Your task to perform on an android device: delete the emails in spam in the gmail app Image 0: 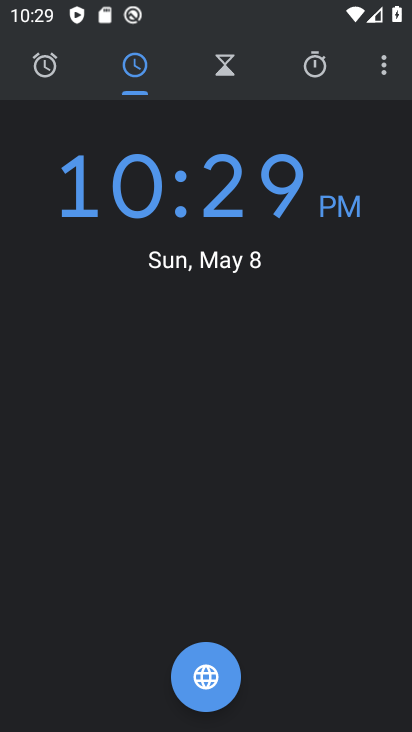
Step 0: press back button
Your task to perform on an android device: delete the emails in spam in the gmail app Image 1: 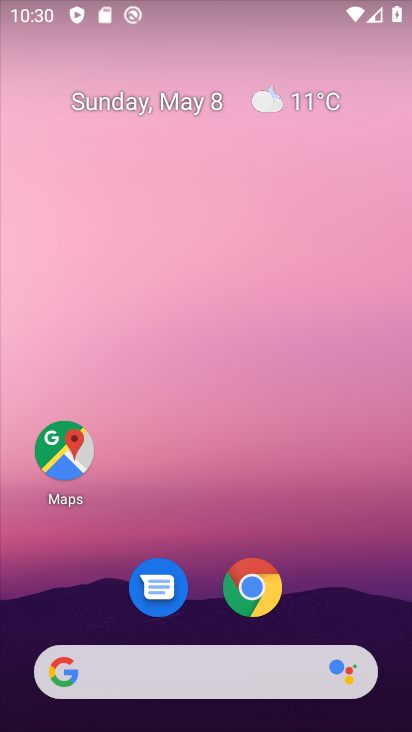
Step 1: drag from (189, 664) to (155, 279)
Your task to perform on an android device: delete the emails in spam in the gmail app Image 2: 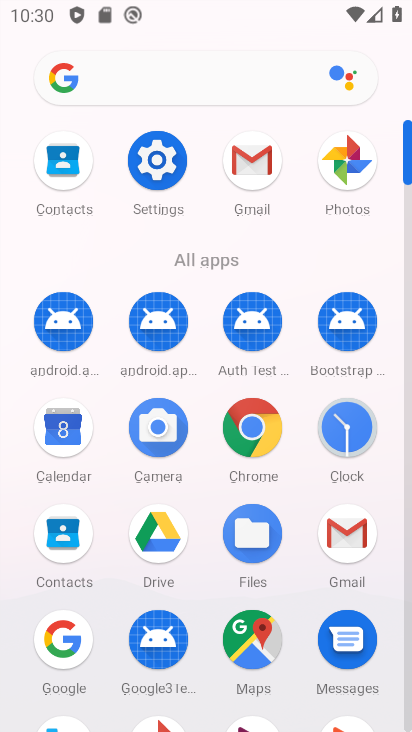
Step 2: click (340, 536)
Your task to perform on an android device: delete the emails in spam in the gmail app Image 3: 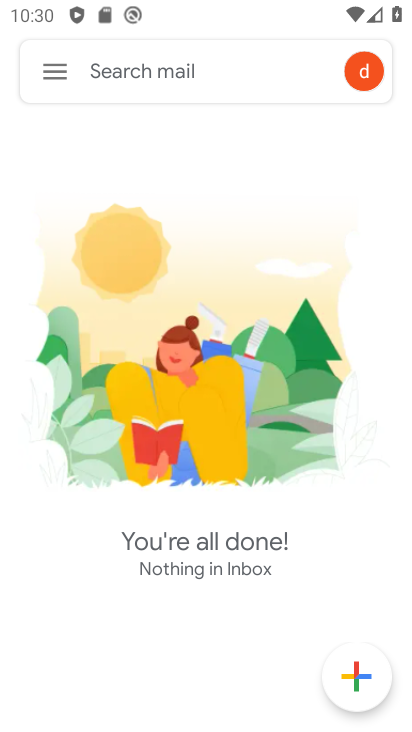
Step 3: click (49, 69)
Your task to perform on an android device: delete the emails in spam in the gmail app Image 4: 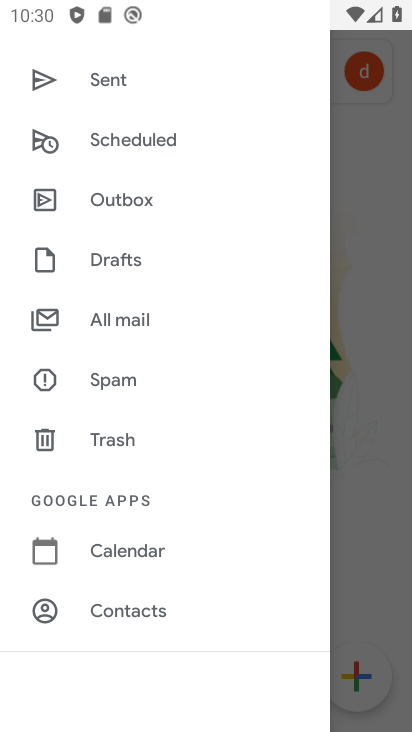
Step 4: drag from (123, 535) to (125, 99)
Your task to perform on an android device: delete the emails in spam in the gmail app Image 5: 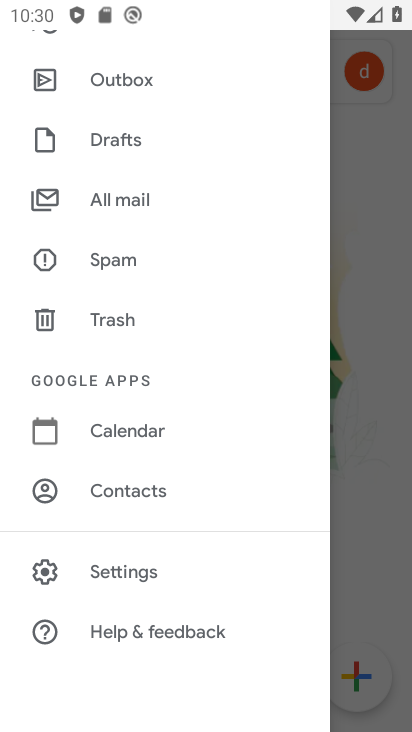
Step 5: click (117, 262)
Your task to perform on an android device: delete the emails in spam in the gmail app Image 6: 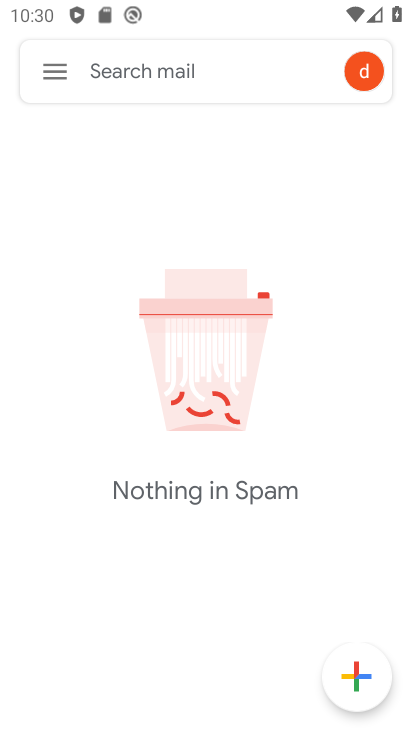
Step 6: task complete